Your task to perform on an android device: Open location settings Image 0: 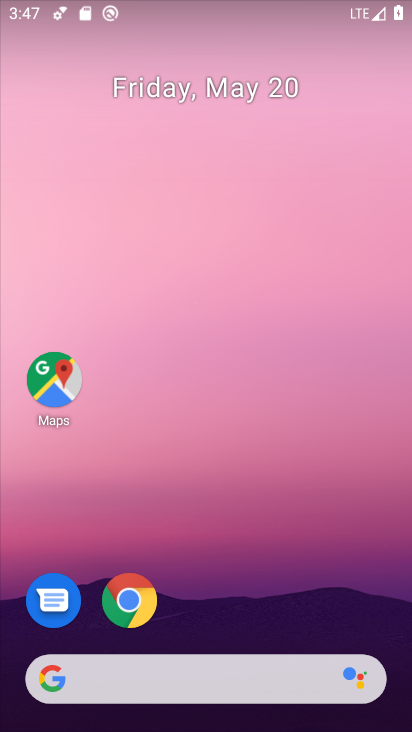
Step 0: drag from (370, 611) to (325, 164)
Your task to perform on an android device: Open location settings Image 1: 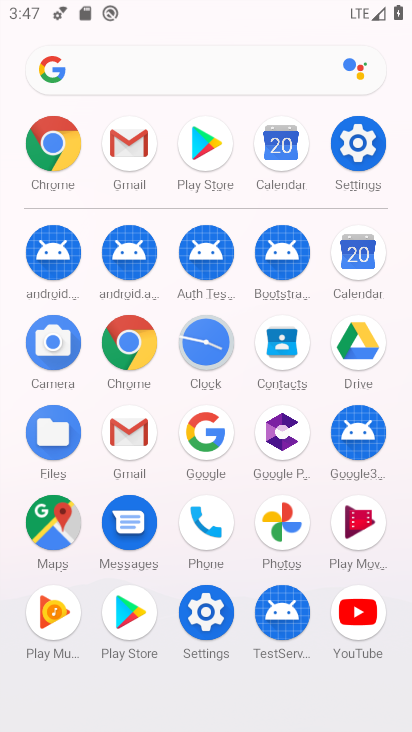
Step 1: click (359, 141)
Your task to perform on an android device: Open location settings Image 2: 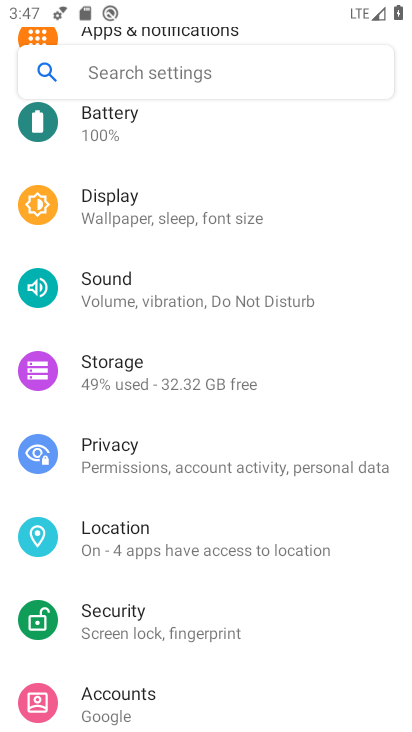
Step 2: drag from (369, 287) to (360, 418)
Your task to perform on an android device: Open location settings Image 3: 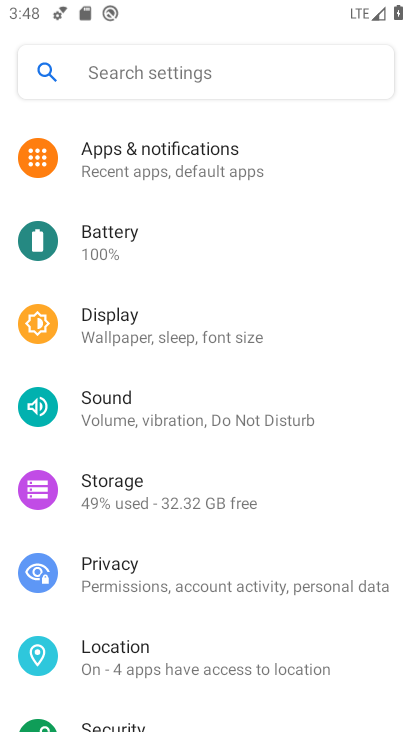
Step 3: drag from (371, 536) to (365, 411)
Your task to perform on an android device: Open location settings Image 4: 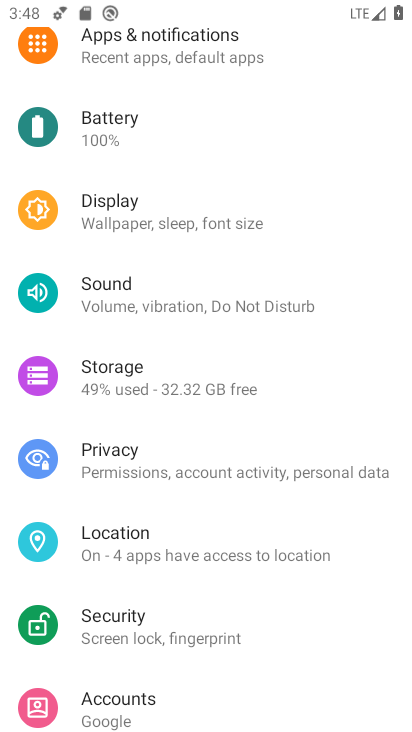
Step 4: drag from (346, 545) to (348, 436)
Your task to perform on an android device: Open location settings Image 5: 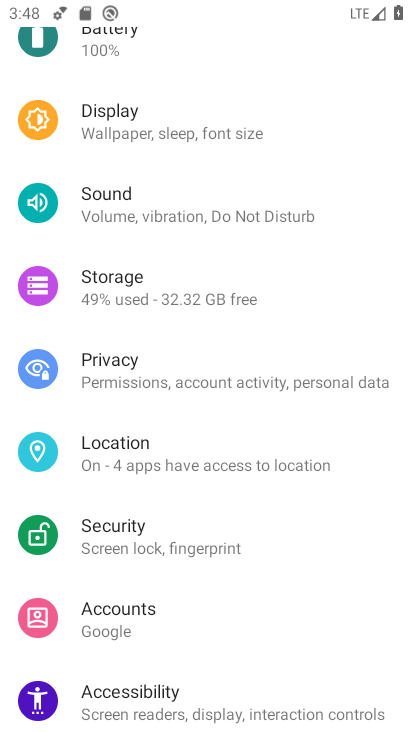
Step 5: click (269, 450)
Your task to perform on an android device: Open location settings Image 6: 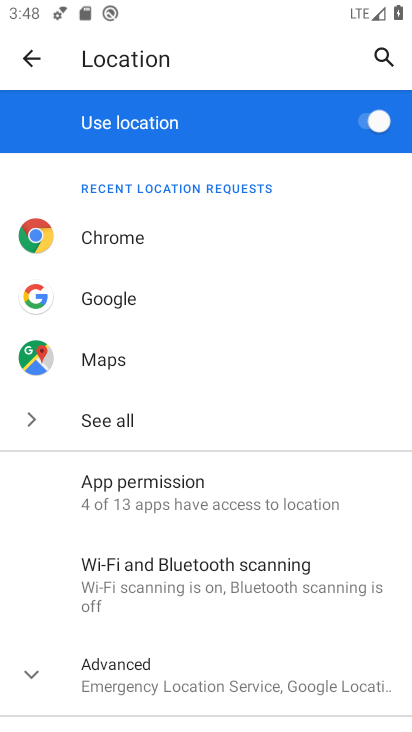
Step 6: task complete